Your task to perform on an android device: Open Yahoo.com Image 0: 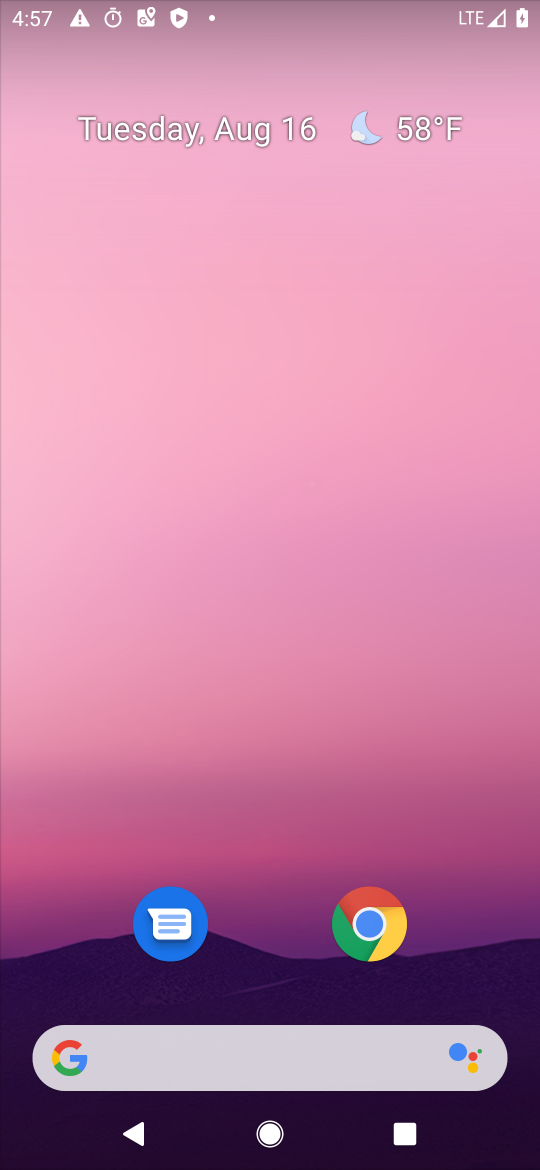
Step 0: drag from (350, 803) to (364, 579)
Your task to perform on an android device: Open Yahoo.com Image 1: 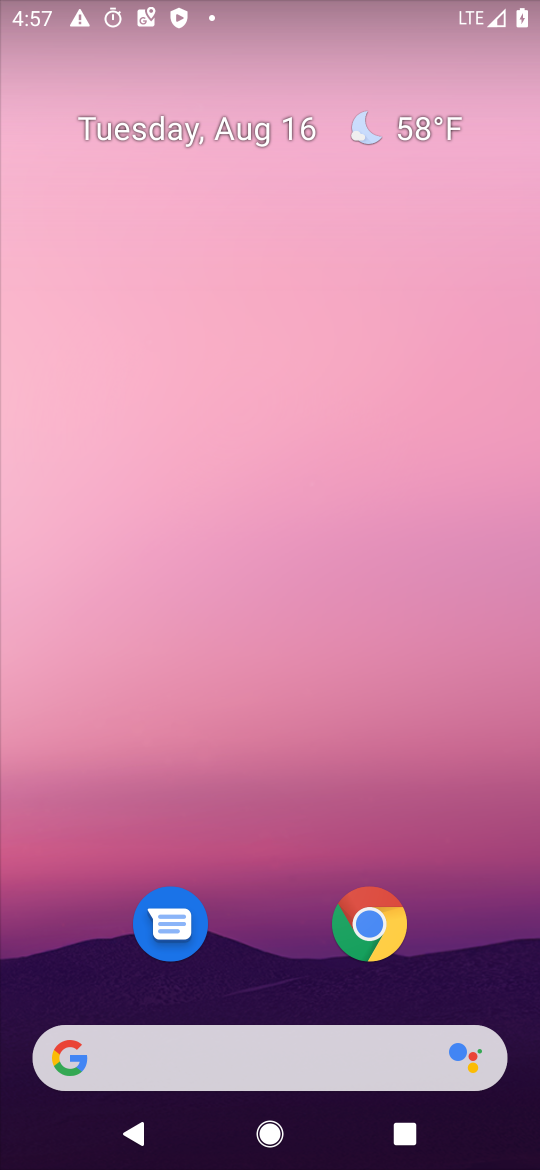
Step 1: click (362, 909)
Your task to perform on an android device: Open Yahoo.com Image 2: 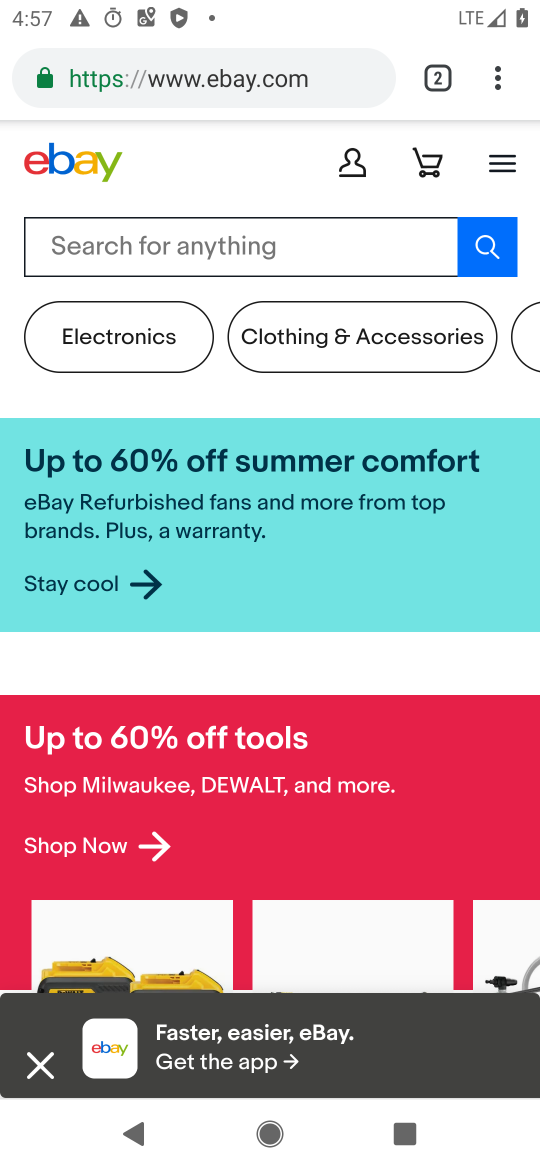
Step 2: click (445, 81)
Your task to perform on an android device: Open Yahoo.com Image 3: 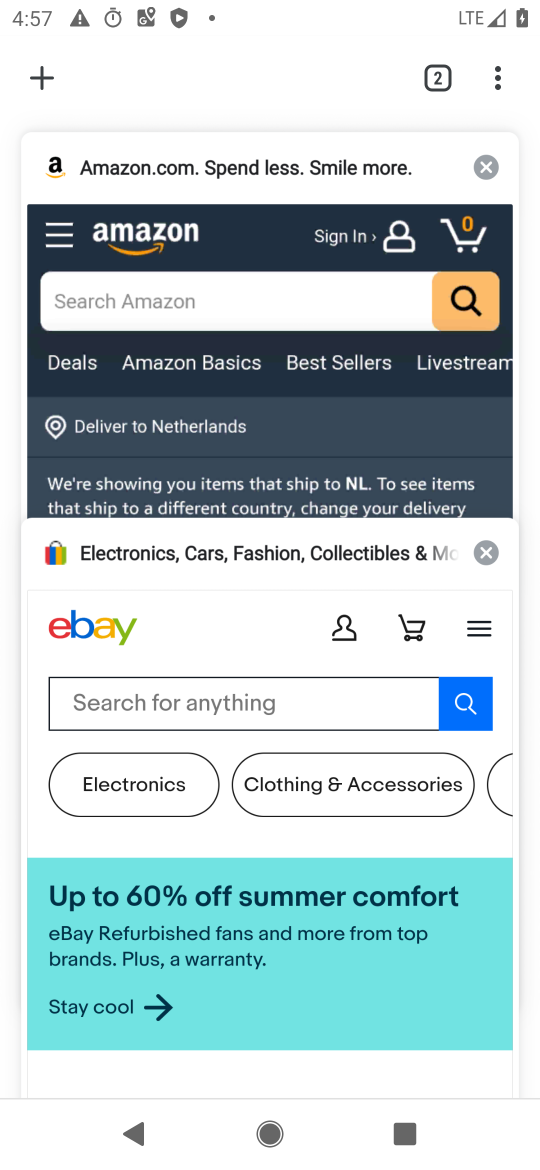
Step 3: click (56, 78)
Your task to perform on an android device: Open Yahoo.com Image 4: 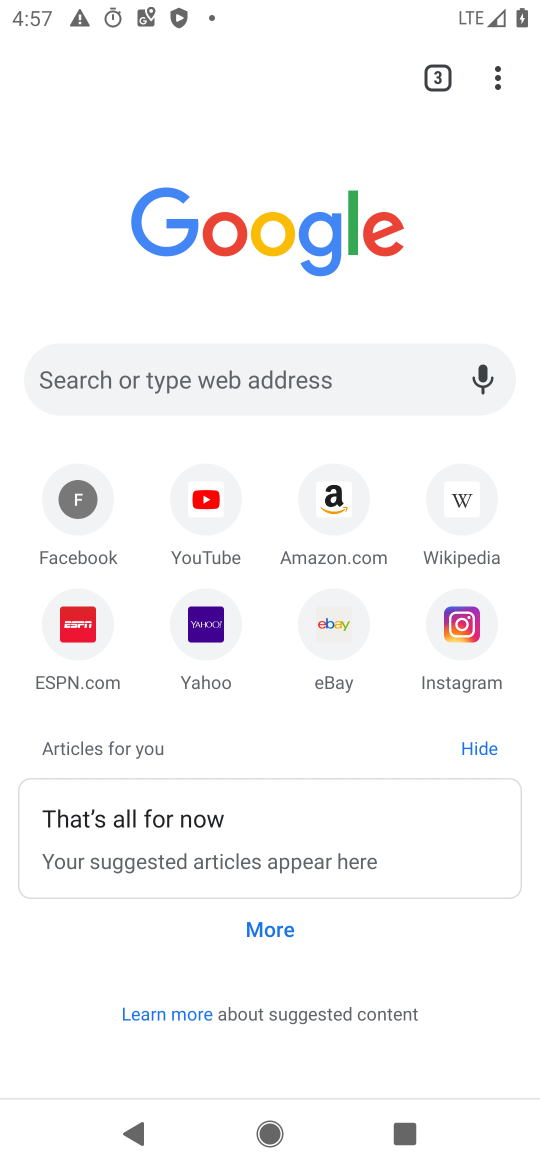
Step 4: click (202, 637)
Your task to perform on an android device: Open Yahoo.com Image 5: 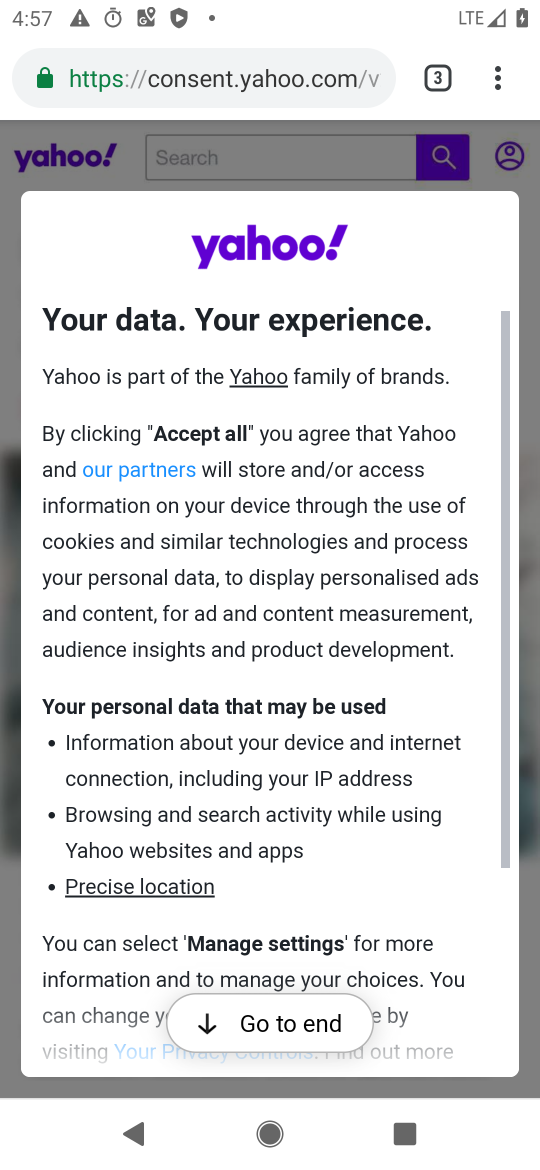
Step 5: task complete